Your task to perform on an android device: read, delete, or share a saved page in the chrome app Image 0: 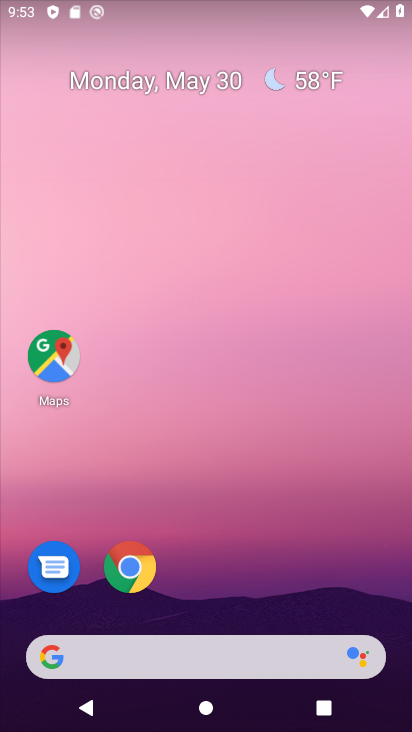
Step 0: click (123, 569)
Your task to perform on an android device: read, delete, or share a saved page in the chrome app Image 1: 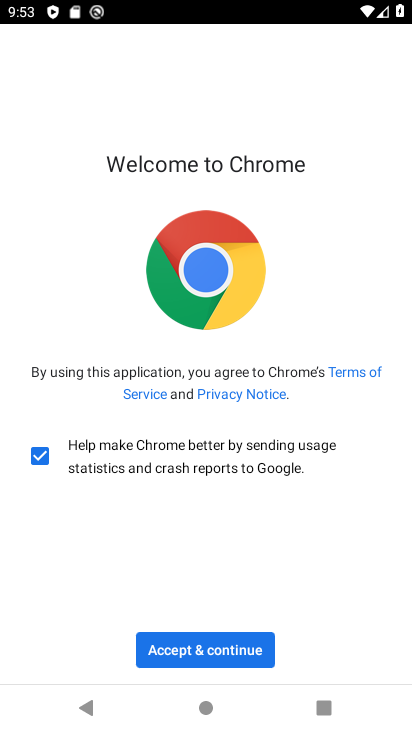
Step 1: click (259, 640)
Your task to perform on an android device: read, delete, or share a saved page in the chrome app Image 2: 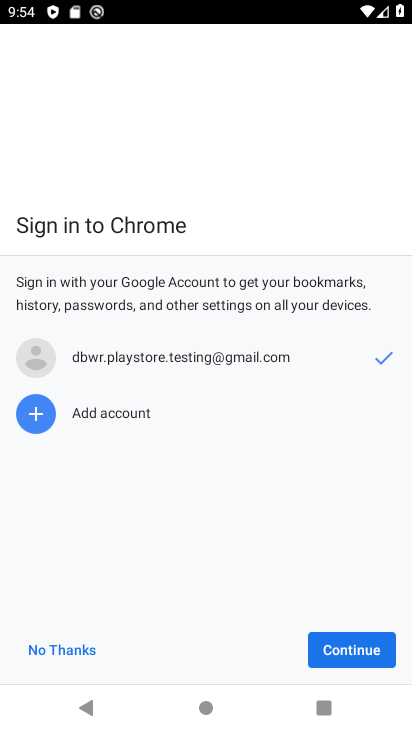
Step 2: click (324, 651)
Your task to perform on an android device: read, delete, or share a saved page in the chrome app Image 3: 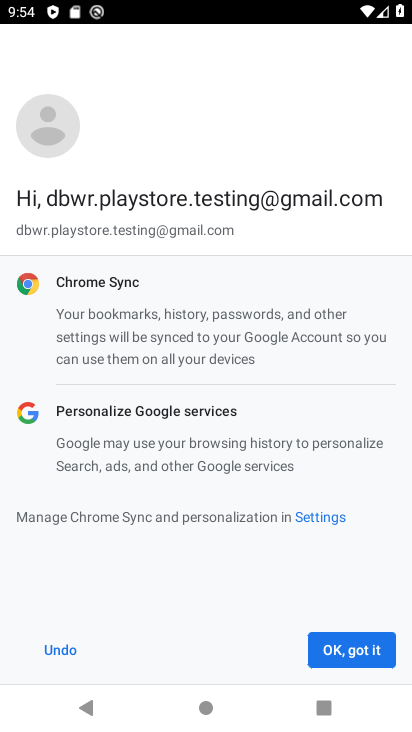
Step 3: click (324, 651)
Your task to perform on an android device: read, delete, or share a saved page in the chrome app Image 4: 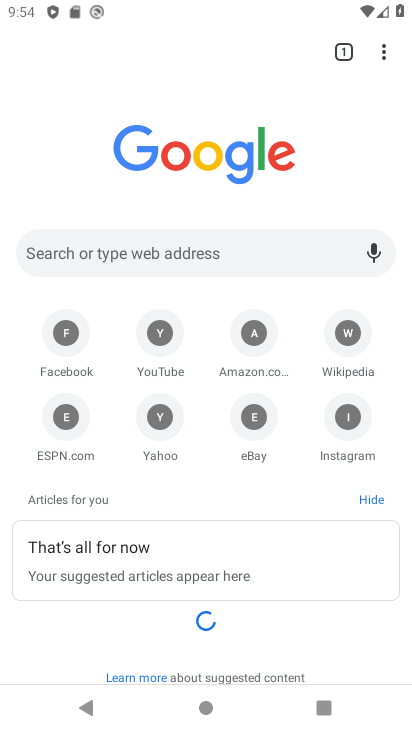
Step 4: click (379, 45)
Your task to perform on an android device: read, delete, or share a saved page in the chrome app Image 5: 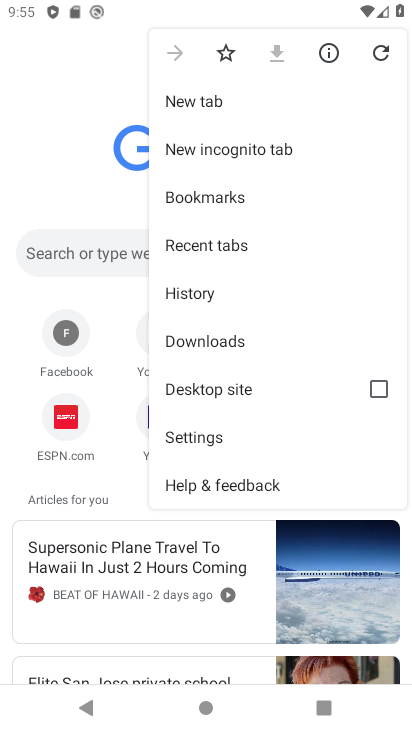
Step 5: click (198, 429)
Your task to perform on an android device: read, delete, or share a saved page in the chrome app Image 6: 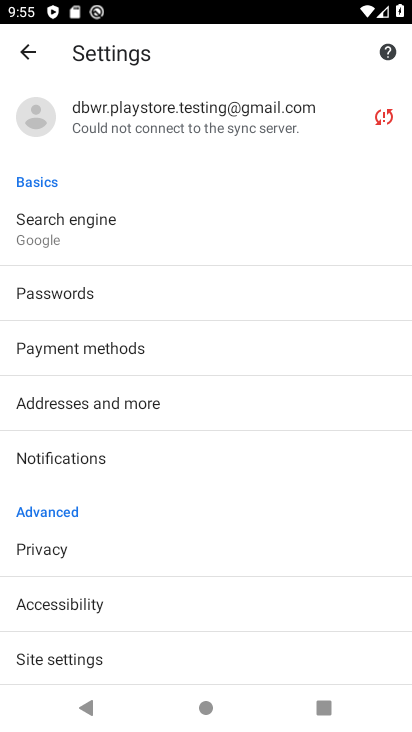
Step 6: drag from (79, 586) to (119, 301)
Your task to perform on an android device: read, delete, or share a saved page in the chrome app Image 7: 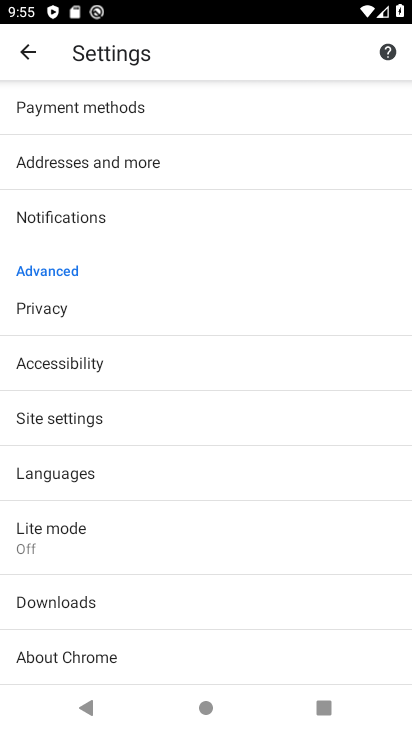
Step 7: click (32, 61)
Your task to perform on an android device: read, delete, or share a saved page in the chrome app Image 8: 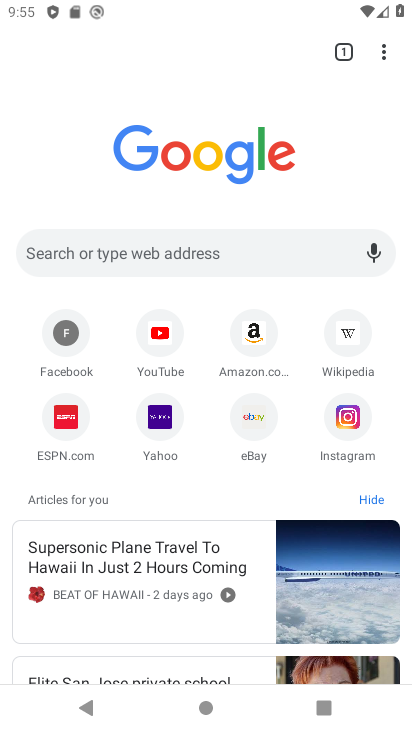
Step 8: click (372, 52)
Your task to perform on an android device: read, delete, or share a saved page in the chrome app Image 9: 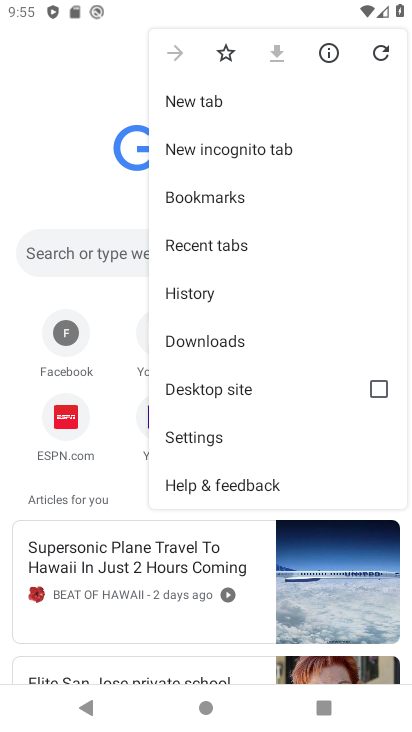
Step 9: click (202, 338)
Your task to perform on an android device: read, delete, or share a saved page in the chrome app Image 10: 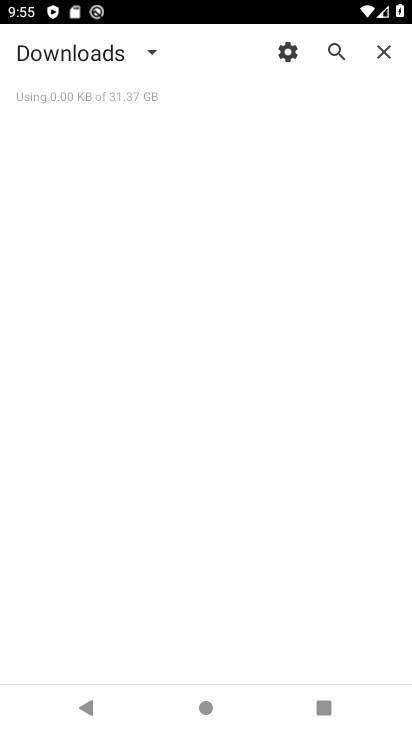
Step 10: click (151, 57)
Your task to perform on an android device: read, delete, or share a saved page in the chrome app Image 11: 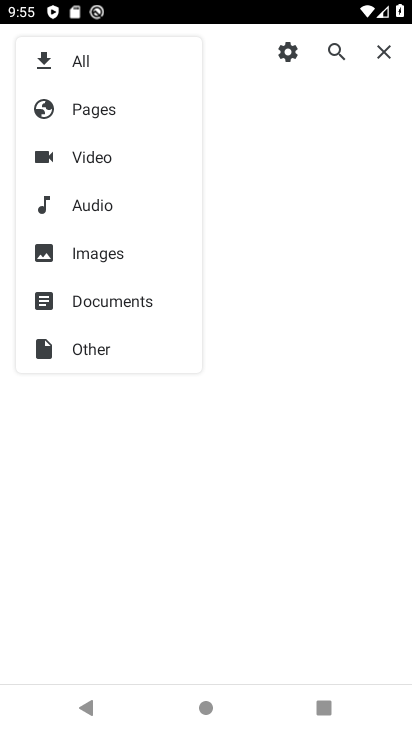
Step 11: click (101, 111)
Your task to perform on an android device: read, delete, or share a saved page in the chrome app Image 12: 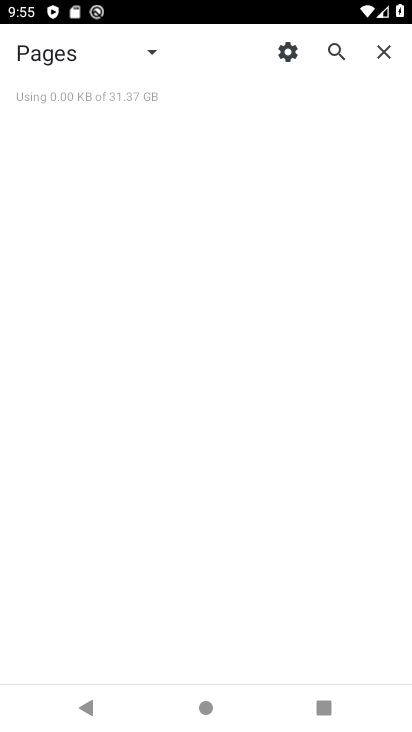
Step 12: task complete